Your task to perform on an android device: toggle show notifications on the lock screen Image 0: 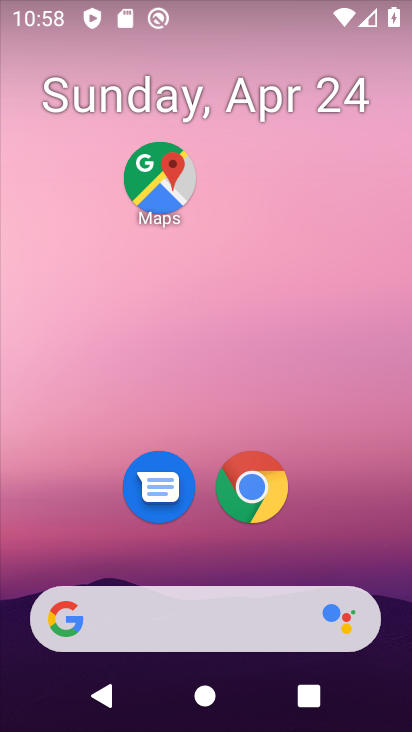
Step 0: drag from (52, 551) to (287, 163)
Your task to perform on an android device: toggle show notifications on the lock screen Image 1: 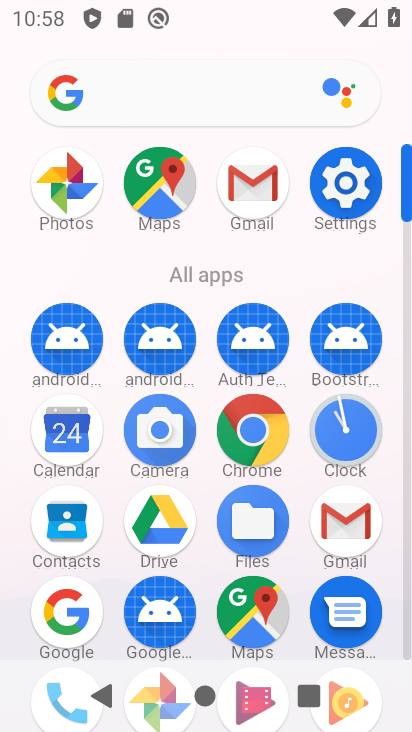
Step 1: click (342, 187)
Your task to perform on an android device: toggle show notifications on the lock screen Image 2: 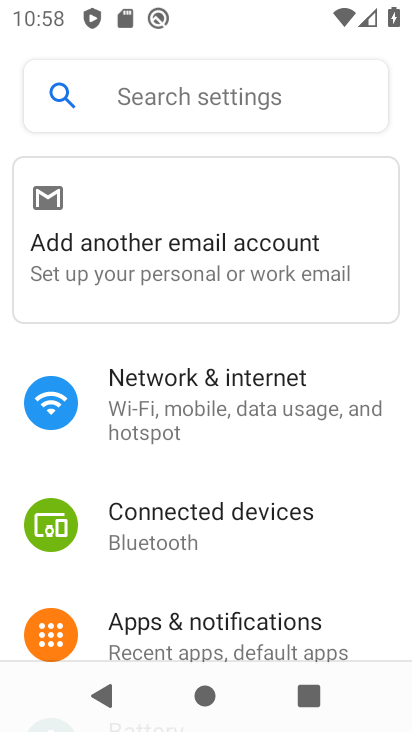
Step 2: click (246, 641)
Your task to perform on an android device: toggle show notifications on the lock screen Image 3: 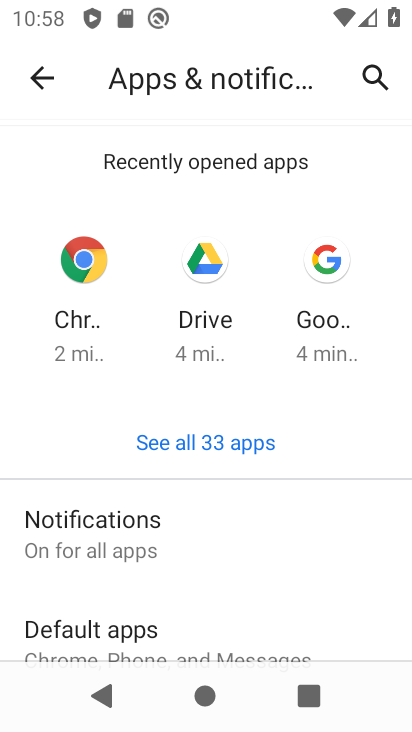
Step 3: click (89, 536)
Your task to perform on an android device: toggle show notifications on the lock screen Image 4: 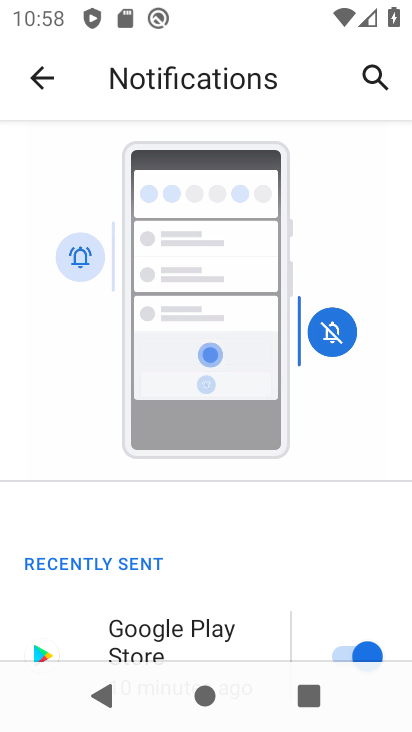
Step 4: drag from (105, 630) to (297, 265)
Your task to perform on an android device: toggle show notifications on the lock screen Image 5: 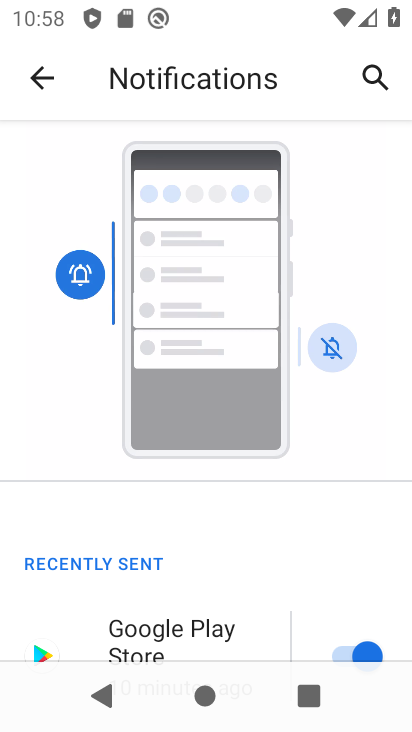
Step 5: drag from (50, 567) to (211, 239)
Your task to perform on an android device: toggle show notifications on the lock screen Image 6: 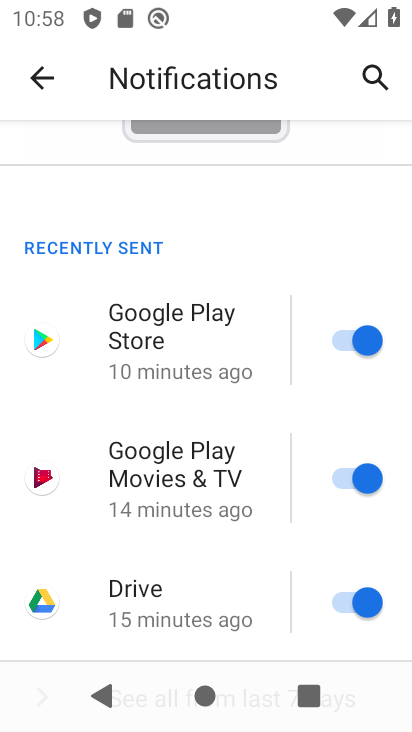
Step 6: drag from (141, 595) to (321, 269)
Your task to perform on an android device: toggle show notifications on the lock screen Image 7: 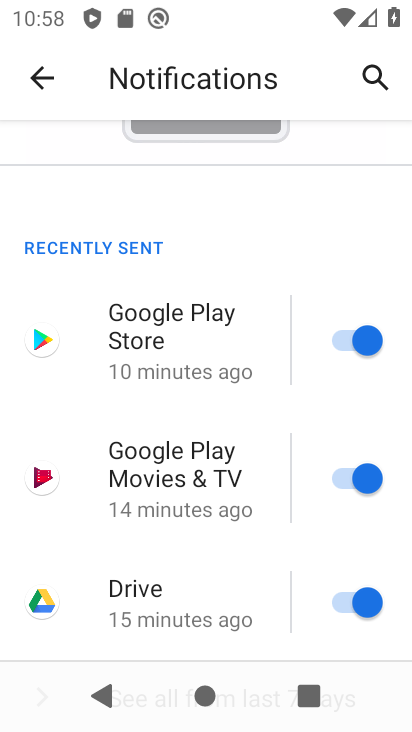
Step 7: drag from (47, 548) to (257, 283)
Your task to perform on an android device: toggle show notifications on the lock screen Image 8: 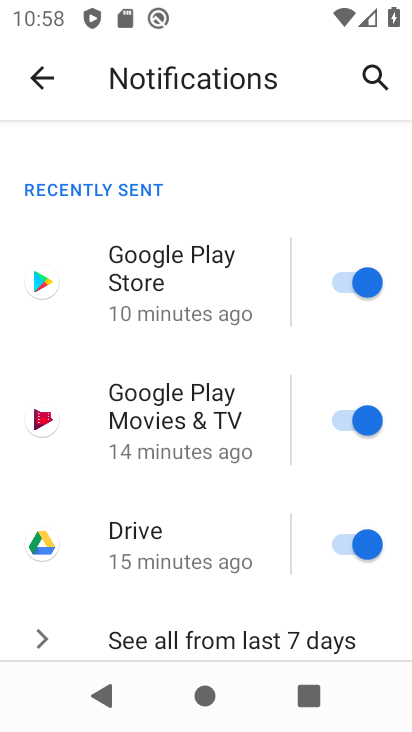
Step 8: drag from (25, 623) to (220, 336)
Your task to perform on an android device: toggle show notifications on the lock screen Image 9: 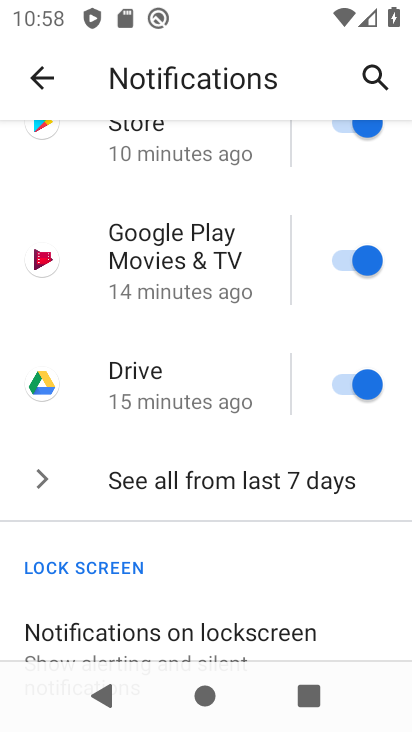
Step 9: click (183, 605)
Your task to perform on an android device: toggle show notifications on the lock screen Image 10: 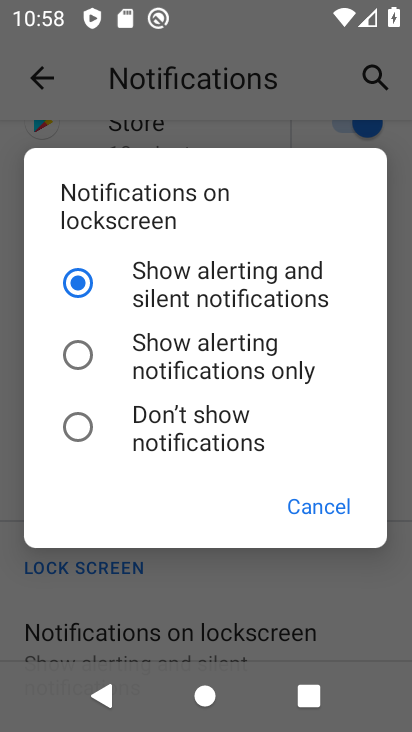
Step 10: click (178, 454)
Your task to perform on an android device: toggle show notifications on the lock screen Image 11: 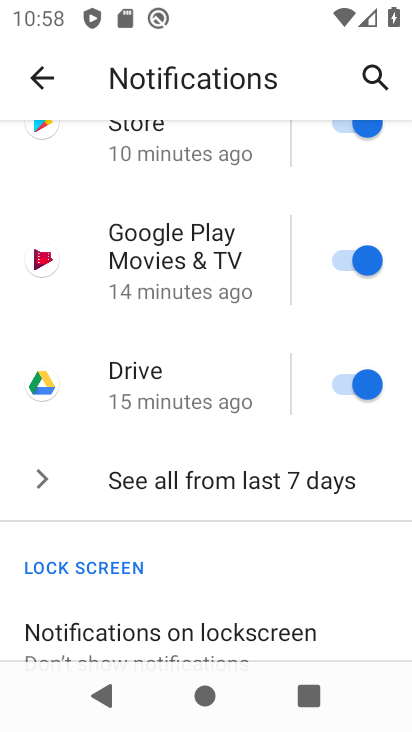
Step 11: task complete